Your task to perform on an android device: toggle priority inbox in the gmail app Image 0: 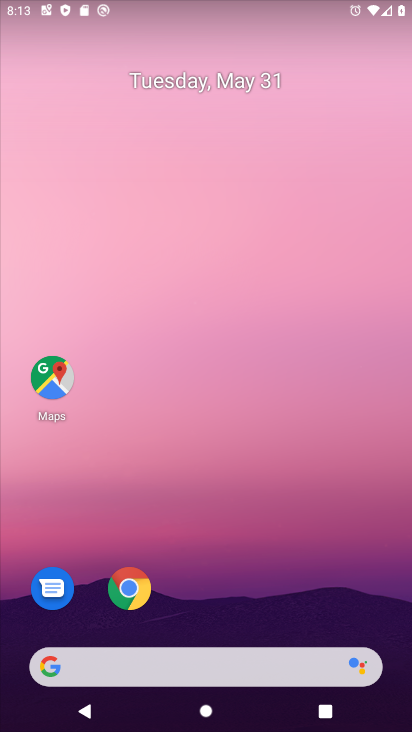
Step 0: drag from (177, 613) to (218, 135)
Your task to perform on an android device: toggle priority inbox in the gmail app Image 1: 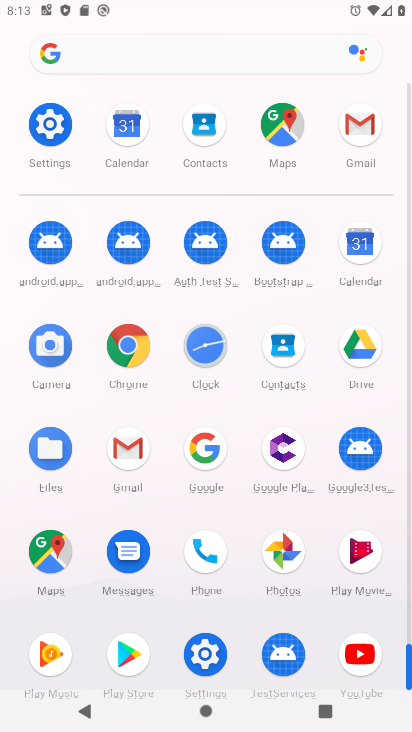
Step 1: click (141, 451)
Your task to perform on an android device: toggle priority inbox in the gmail app Image 2: 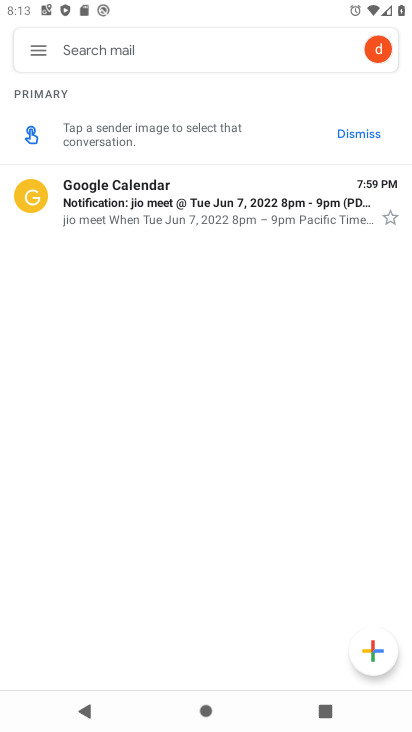
Step 2: click (44, 52)
Your task to perform on an android device: toggle priority inbox in the gmail app Image 3: 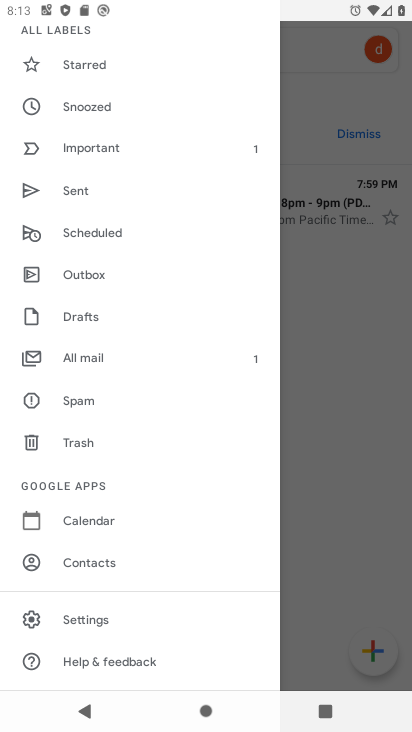
Step 3: click (96, 612)
Your task to perform on an android device: toggle priority inbox in the gmail app Image 4: 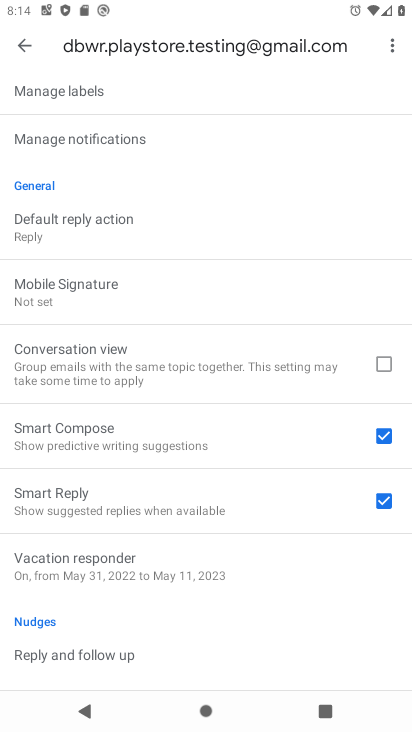
Step 4: drag from (177, 361) to (209, 724)
Your task to perform on an android device: toggle priority inbox in the gmail app Image 5: 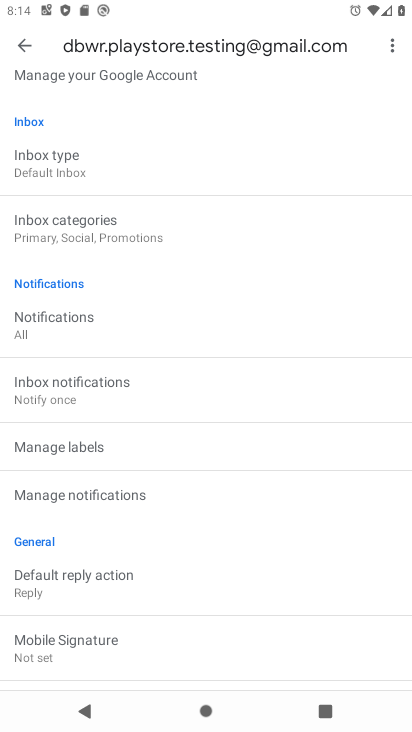
Step 5: click (68, 159)
Your task to perform on an android device: toggle priority inbox in the gmail app Image 6: 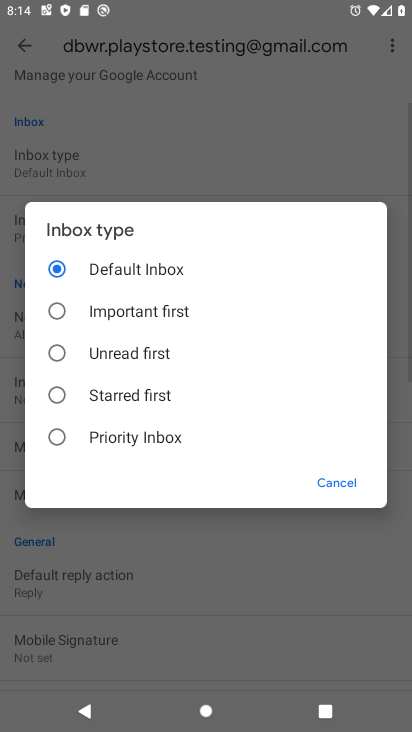
Step 6: click (65, 439)
Your task to perform on an android device: toggle priority inbox in the gmail app Image 7: 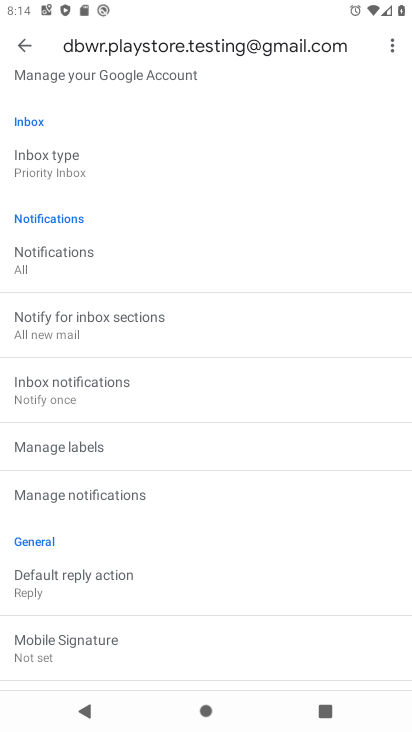
Step 7: task complete